Your task to perform on an android device: Open Youtube and go to the subscriptions tab Image 0: 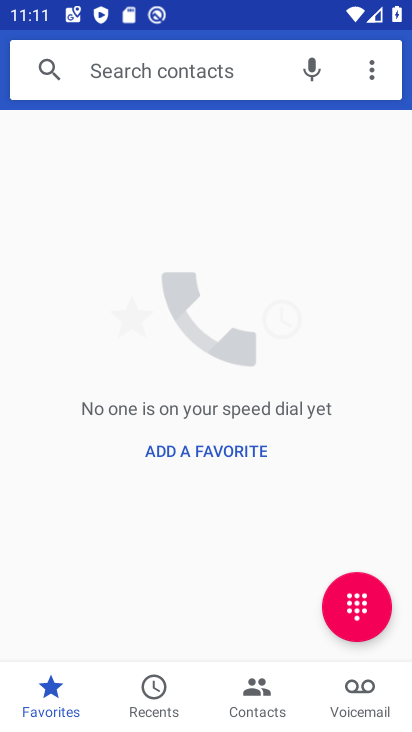
Step 0: press home button
Your task to perform on an android device: Open Youtube and go to the subscriptions tab Image 1: 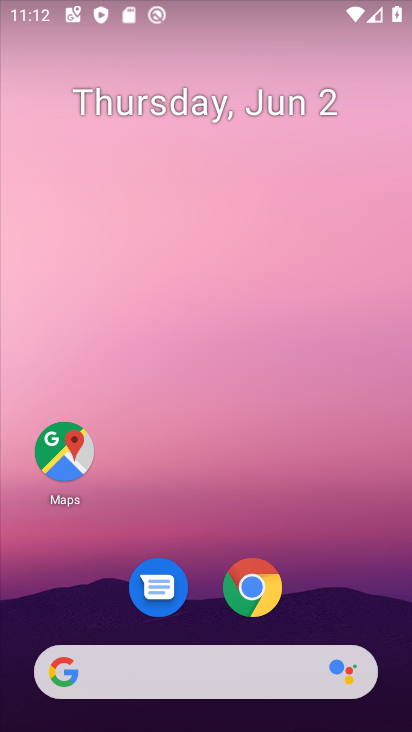
Step 1: drag from (308, 608) to (175, 251)
Your task to perform on an android device: Open Youtube and go to the subscriptions tab Image 2: 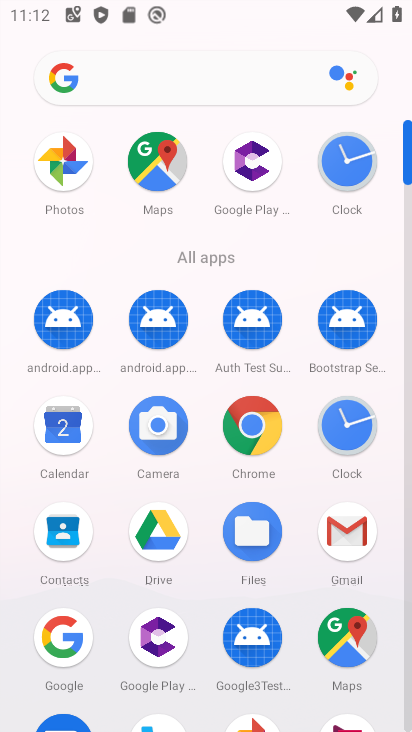
Step 2: click (401, 689)
Your task to perform on an android device: Open Youtube and go to the subscriptions tab Image 3: 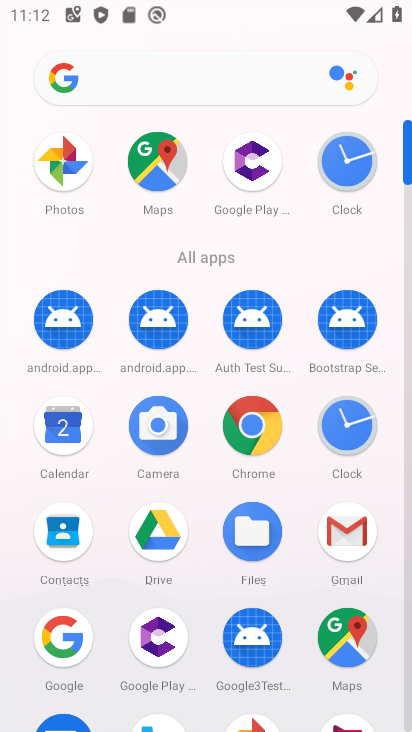
Step 3: click (409, 697)
Your task to perform on an android device: Open Youtube and go to the subscriptions tab Image 4: 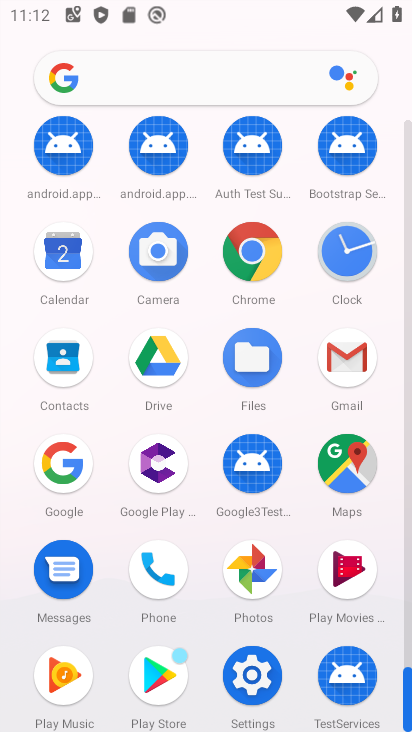
Step 4: drag from (397, 676) to (372, 482)
Your task to perform on an android device: Open Youtube and go to the subscriptions tab Image 5: 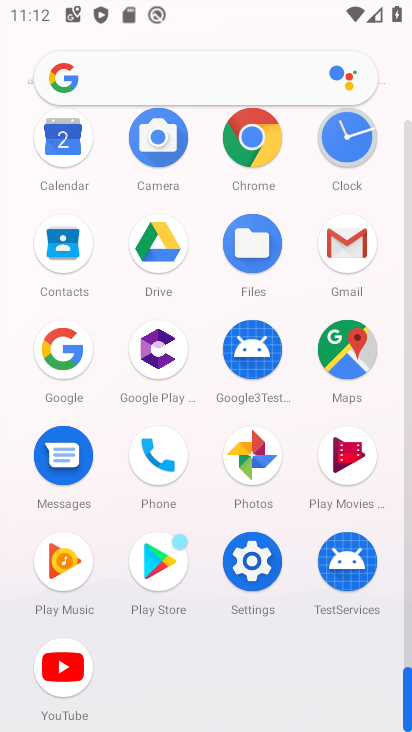
Step 5: click (55, 670)
Your task to perform on an android device: Open Youtube and go to the subscriptions tab Image 6: 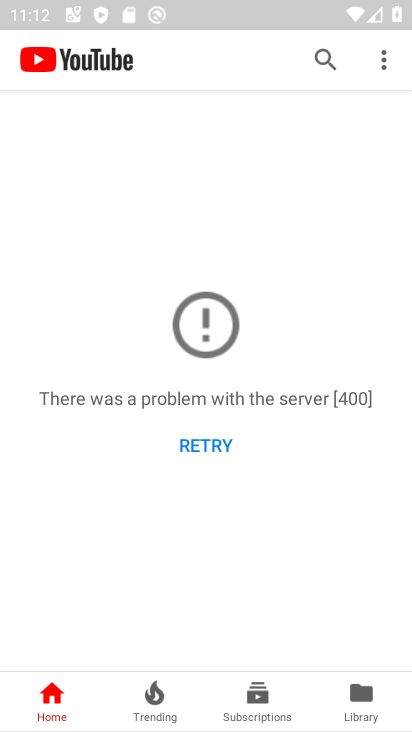
Step 6: click (253, 695)
Your task to perform on an android device: Open Youtube and go to the subscriptions tab Image 7: 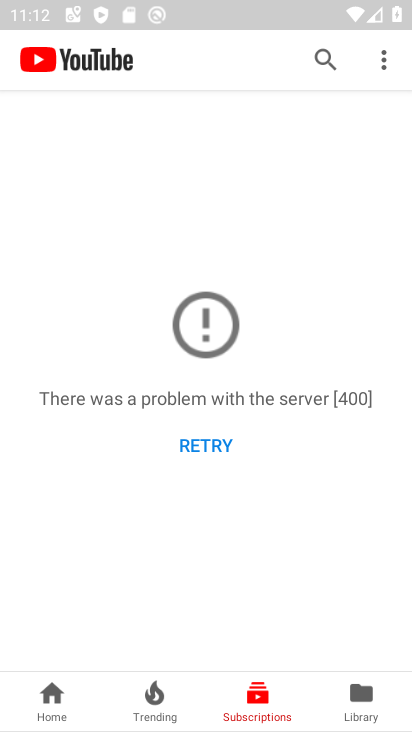
Step 7: task complete